Your task to perform on an android device: toggle notifications settings in the gmail app Image 0: 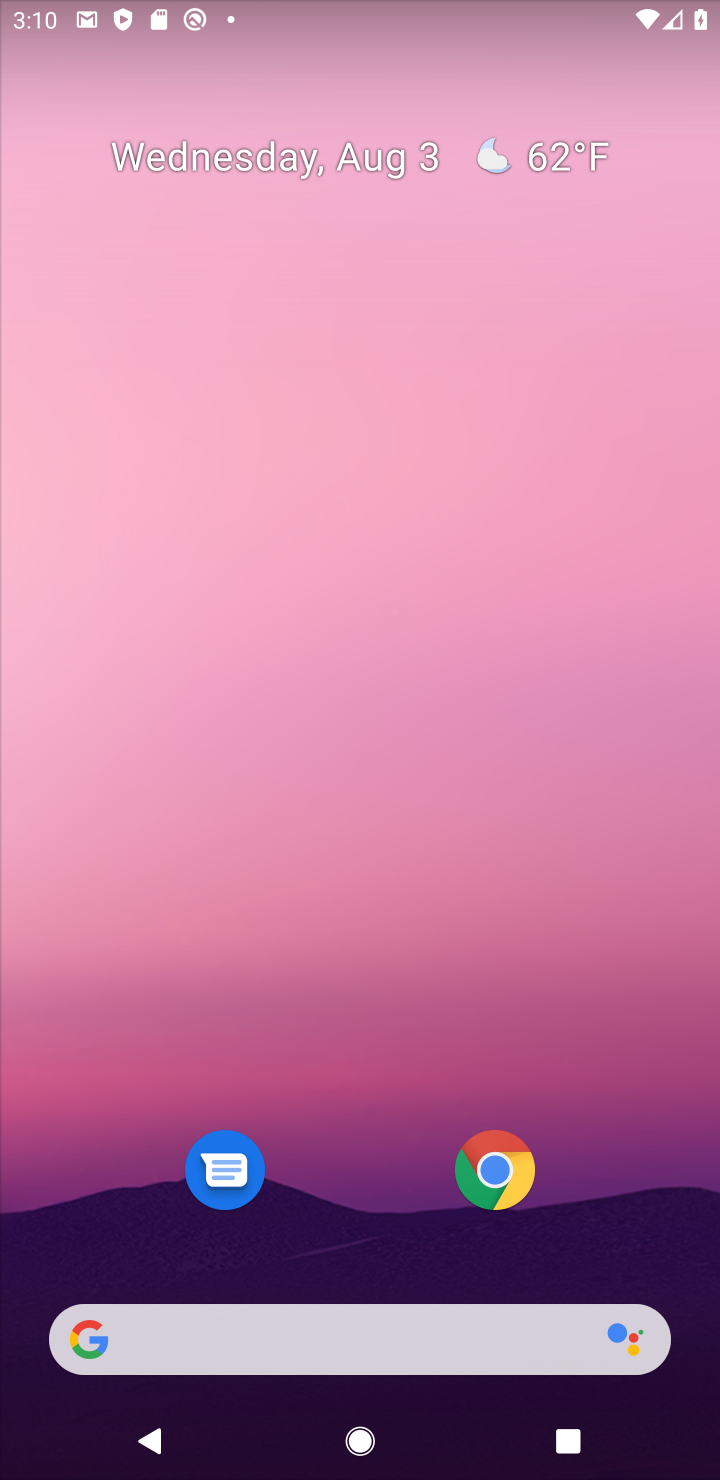
Step 0: drag from (341, 1241) to (413, 245)
Your task to perform on an android device: toggle notifications settings in the gmail app Image 1: 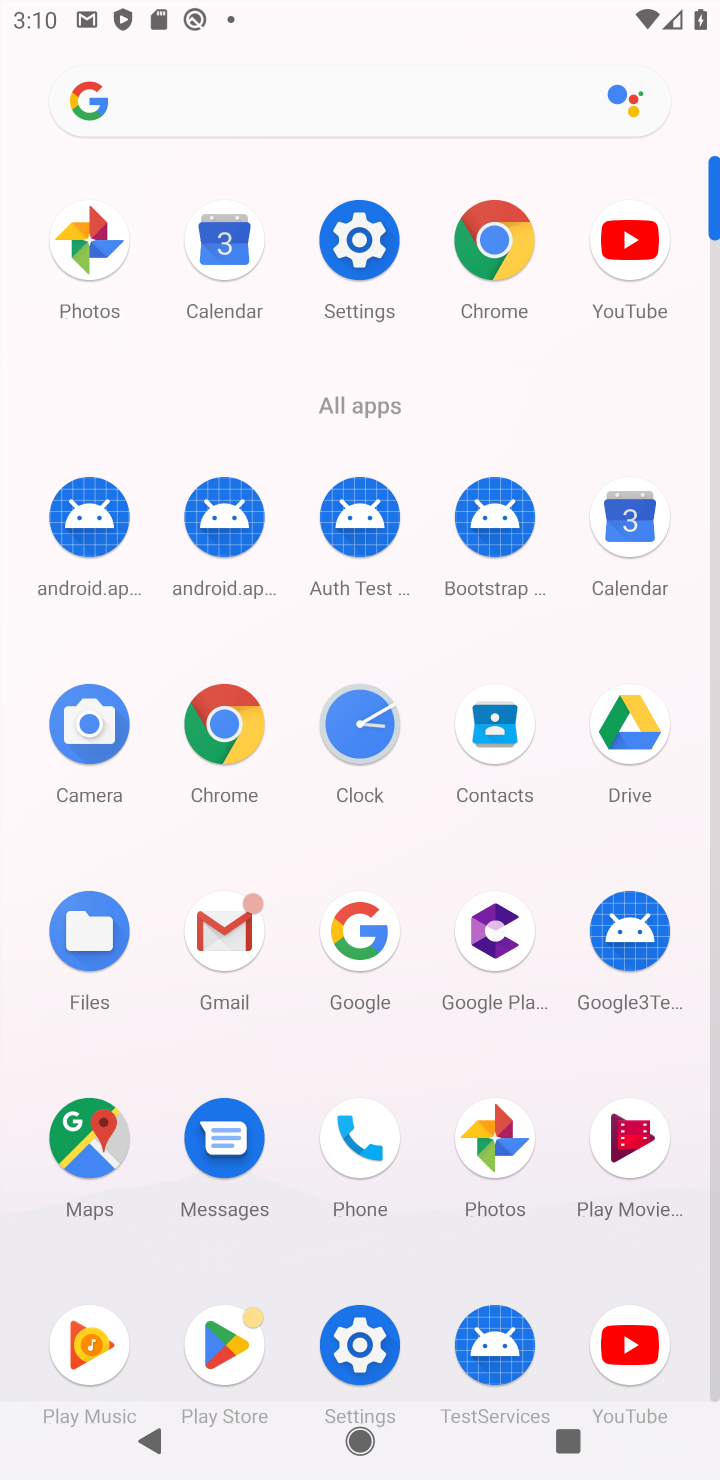
Step 1: click (224, 935)
Your task to perform on an android device: toggle notifications settings in the gmail app Image 2: 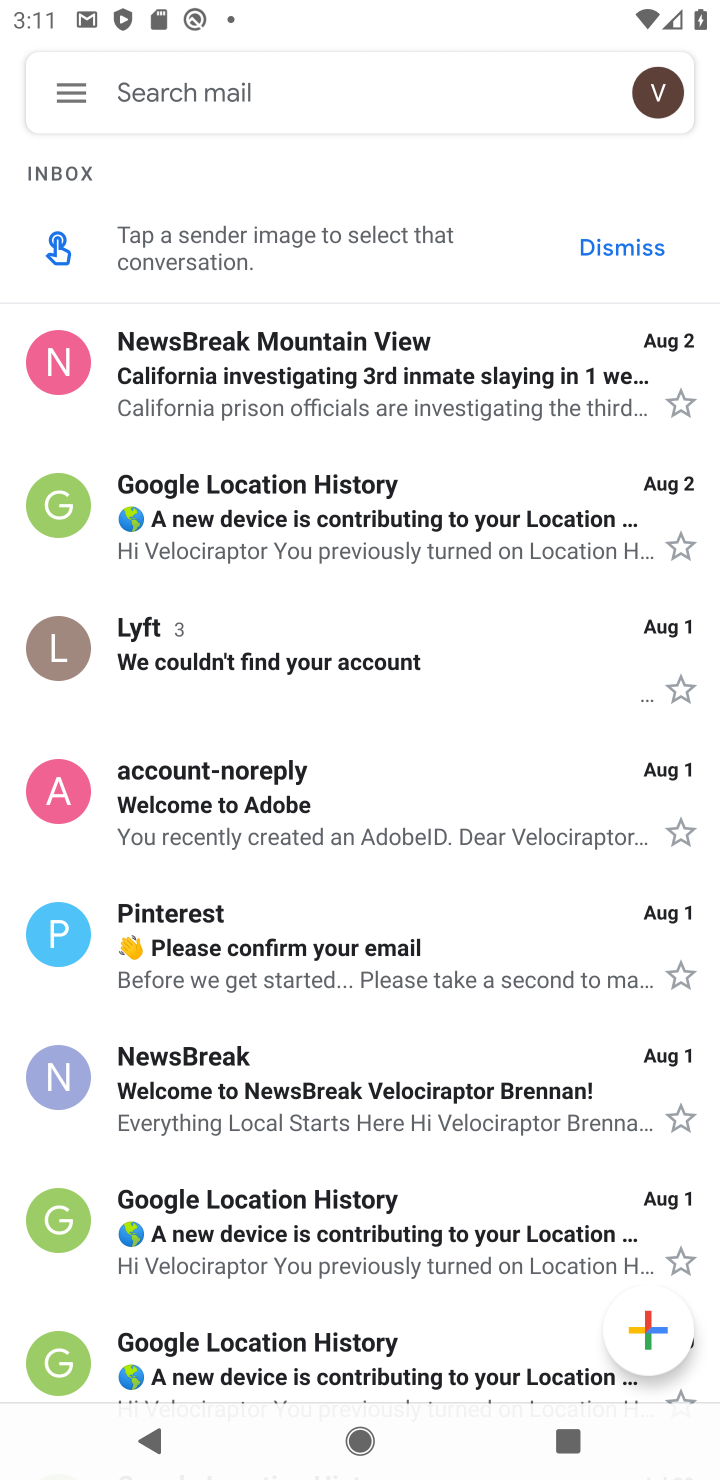
Step 2: click (67, 90)
Your task to perform on an android device: toggle notifications settings in the gmail app Image 3: 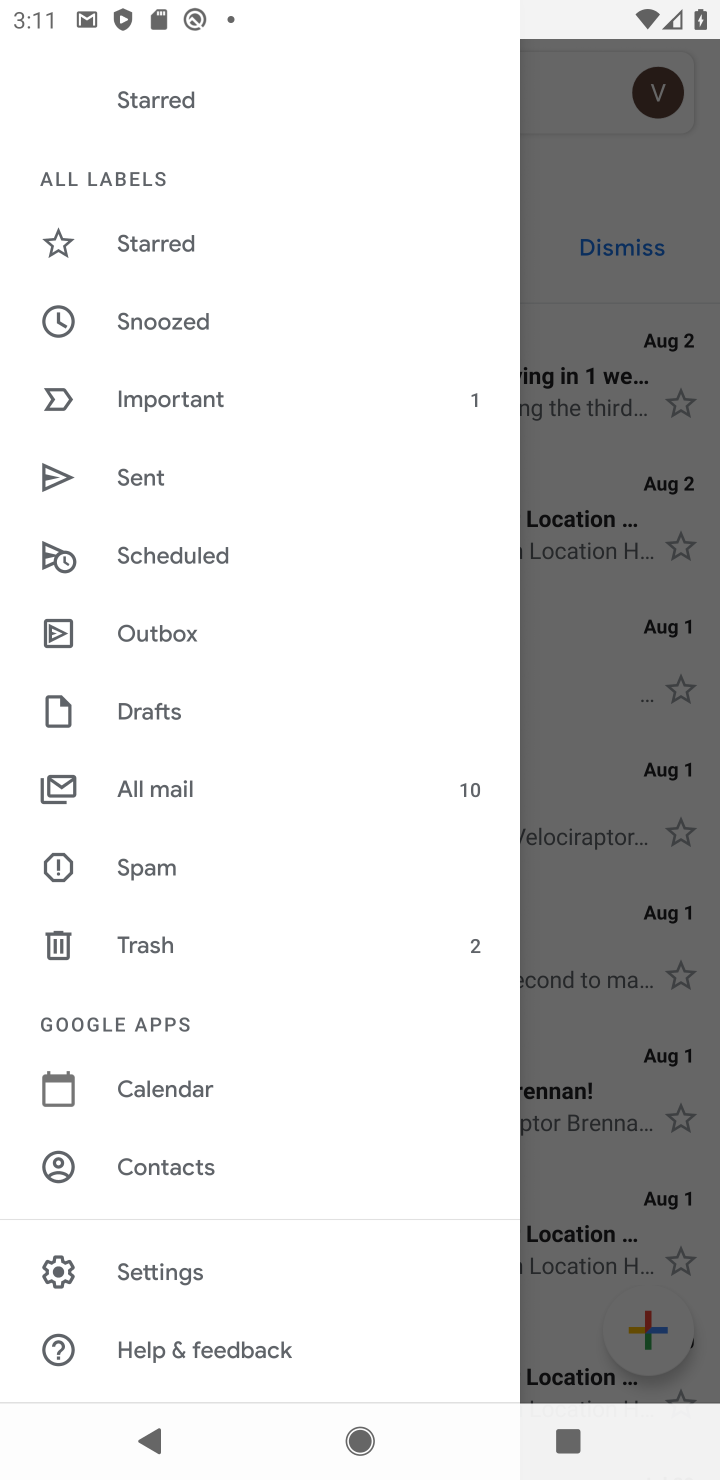
Step 3: click (177, 1273)
Your task to perform on an android device: toggle notifications settings in the gmail app Image 4: 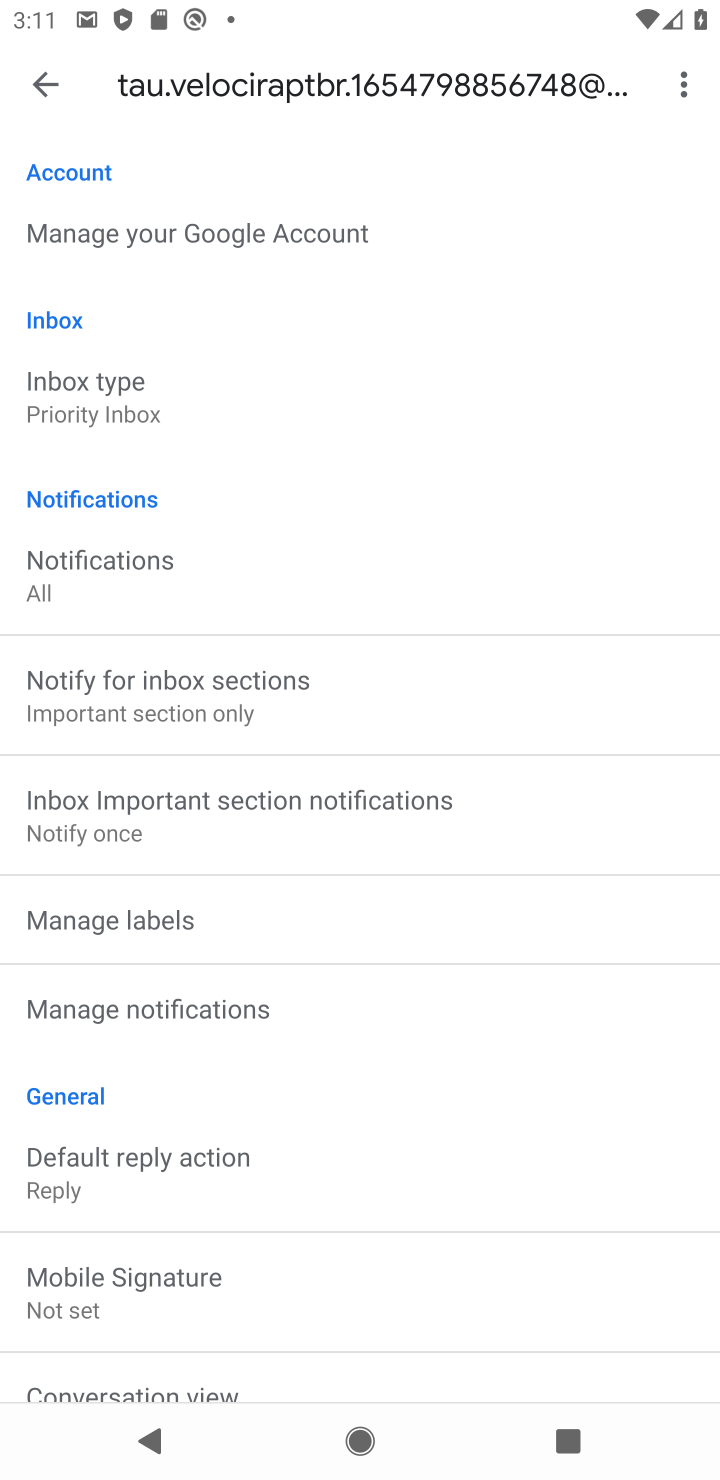
Step 4: click (169, 990)
Your task to perform on an android device: toggle notifications settings in the gmail app Image 5: 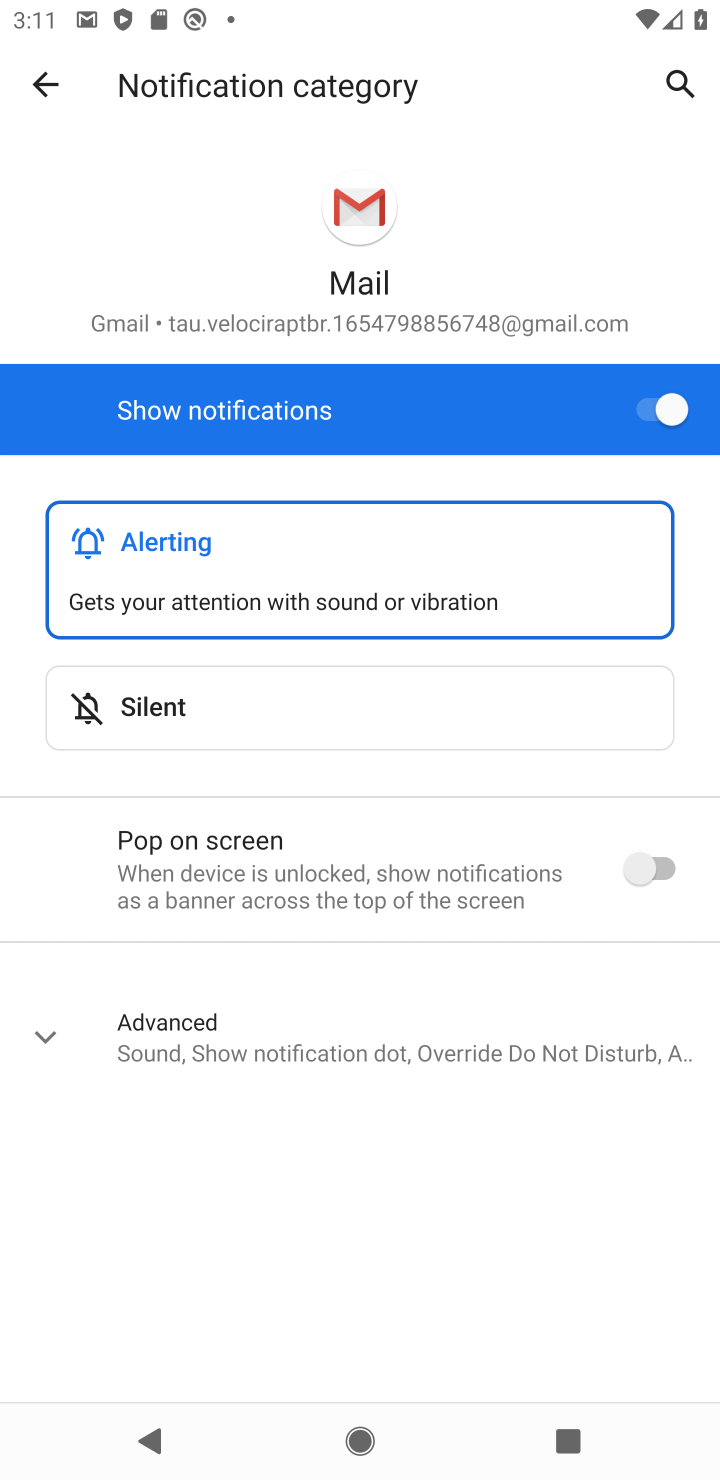
Step 5: click (638, 419)
Your task to perform on an android device: toggle notifications settings in the gmail app Image 6: 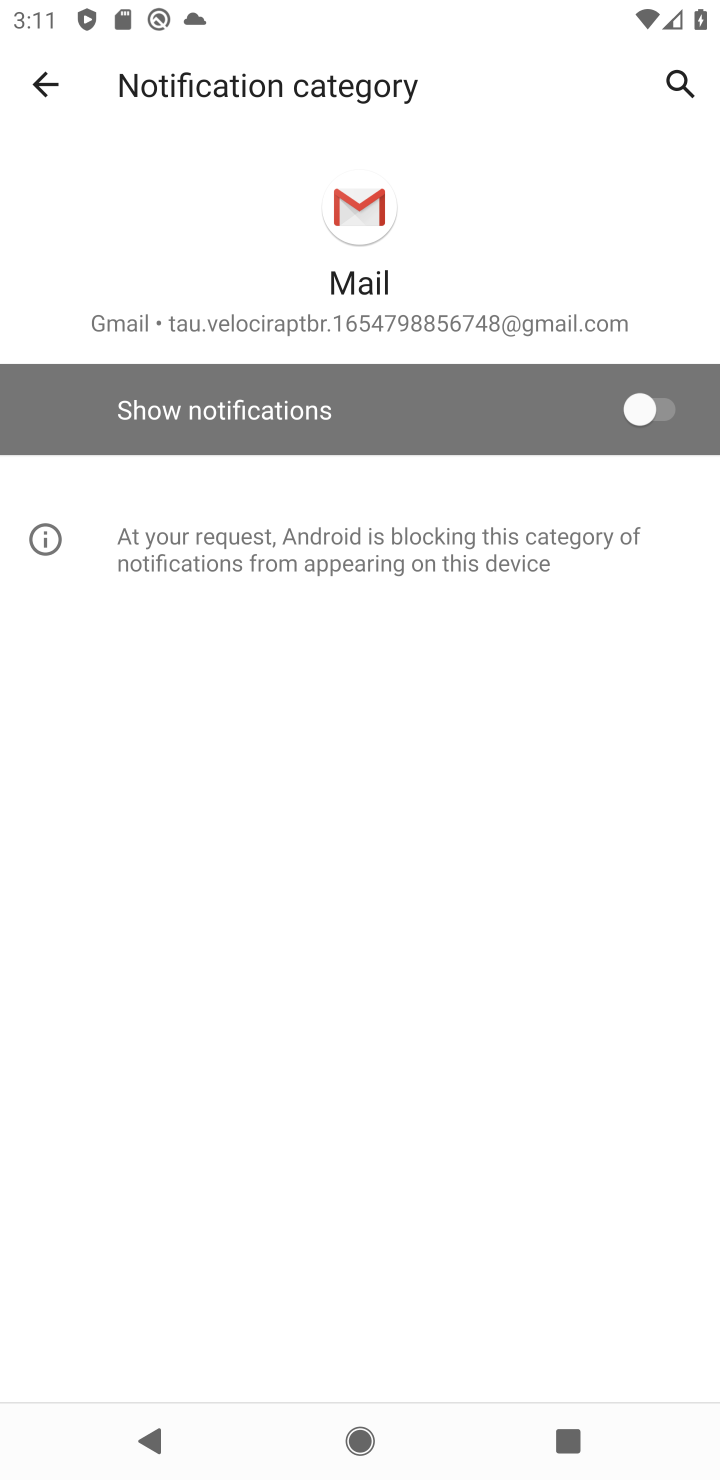
Step 6: task complete